Your task to perform on an android device: Set the phone to "Do not disturb". Image 0: 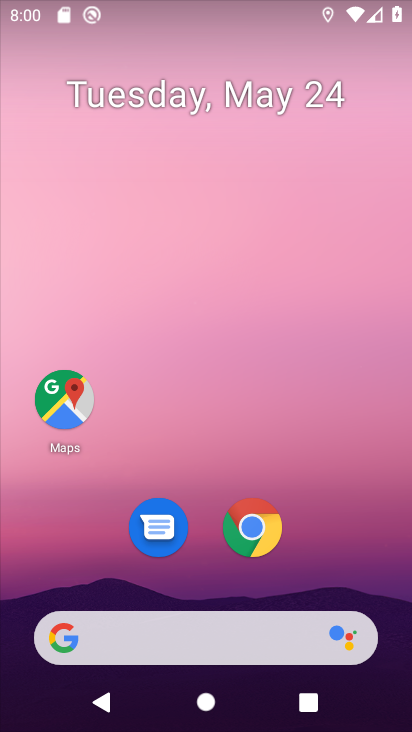
Step 0: drag from (289, 11) to (328, 717)
Your task to perform on an android device: Set the phone to "Do not disturb". Image 1: 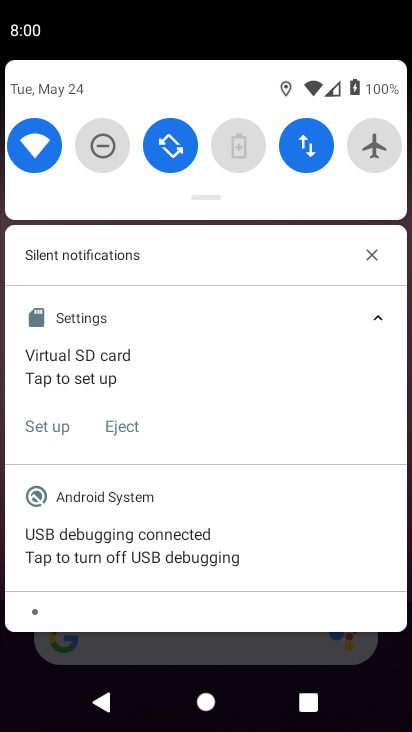
Step 1: click (101, 140)
Your task to perform on an android device: Set the phone to "Do not disturb". Image 2: 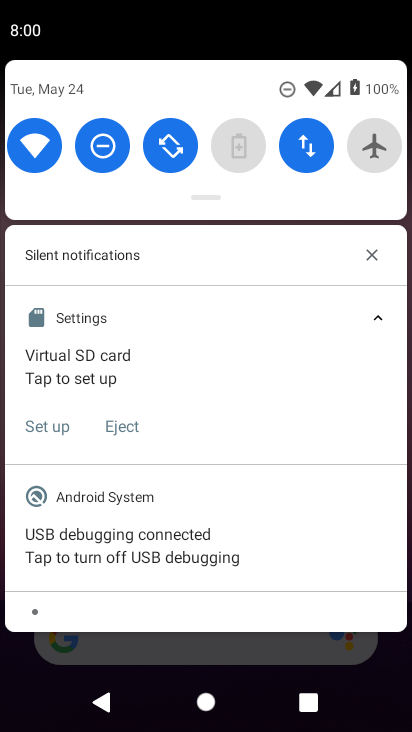
Step 2: task complete